Your task to perform on an android device: turn pop-ups on in chrome Image 0: 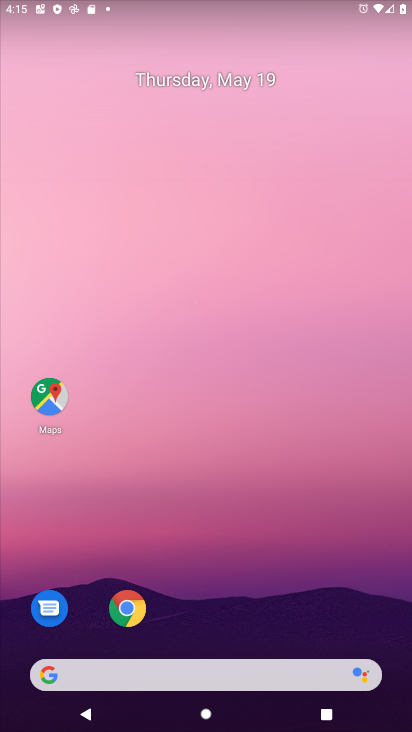
Step 0: click (134, 611)
Your task to perform on an android device: turn pop-ups on in chrome Image 1: 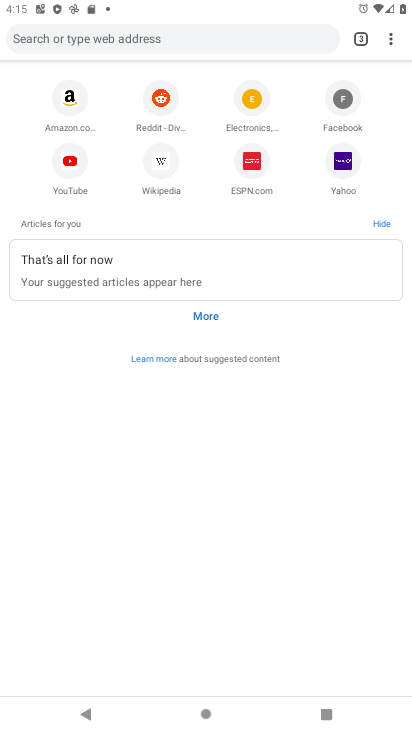
Step 1: click (390, 36)
Your task to perform on an android device: turn pop-ups on in chrome Image 2: 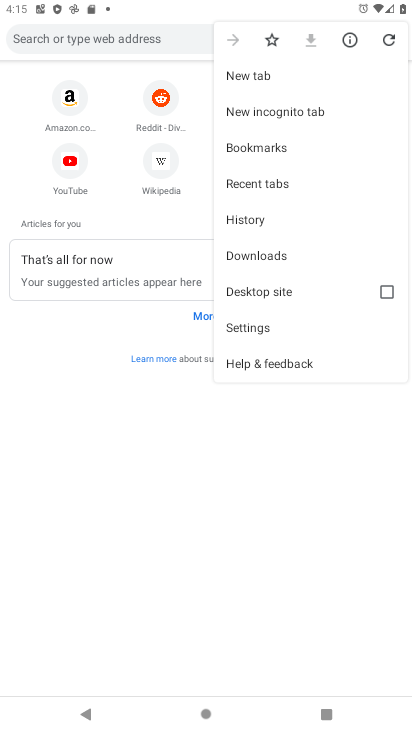
Step 2: click (282, 322)
Your task to perform on an android device: turn pop-ups on in chrome Image 3: 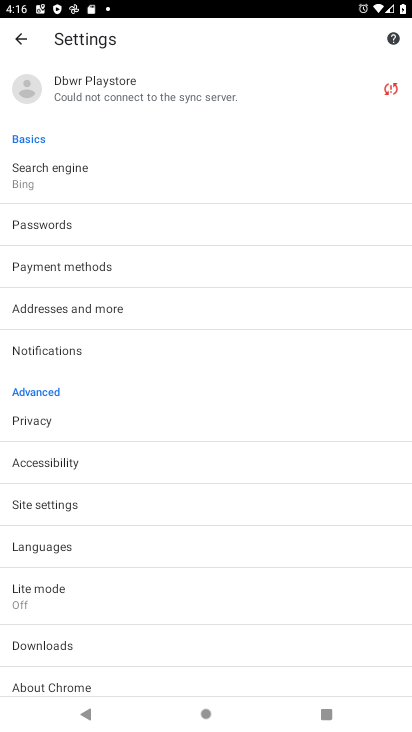
Step 3: click (124, 503)
Your task to perform on an android device: turn pop-ups on in chrome Image 4: 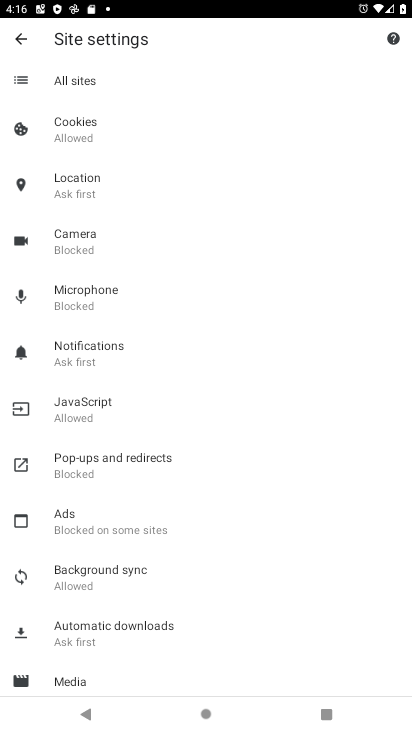
Step 4: click (187, 453)
Your task to perform on an android device: turn pop-ups on in chrome Image 5: 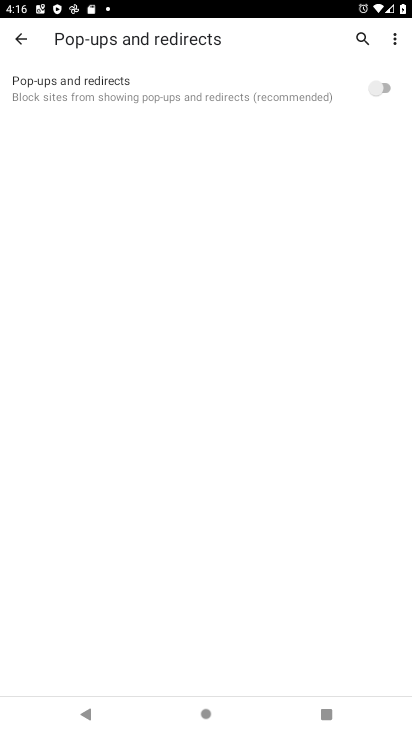
Step 5: click (397, 84)
Your task to perform on an android device: turn pop-ups on in chrome Image 6: 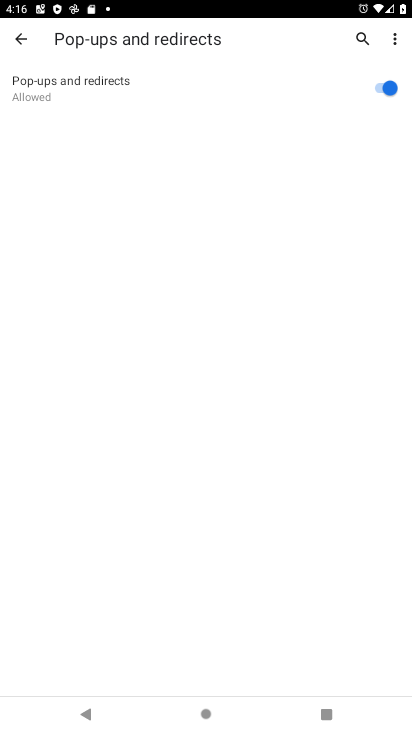
Step 6: task complete